Your task to perform on an android device: Toggle the flashlight Image 0: 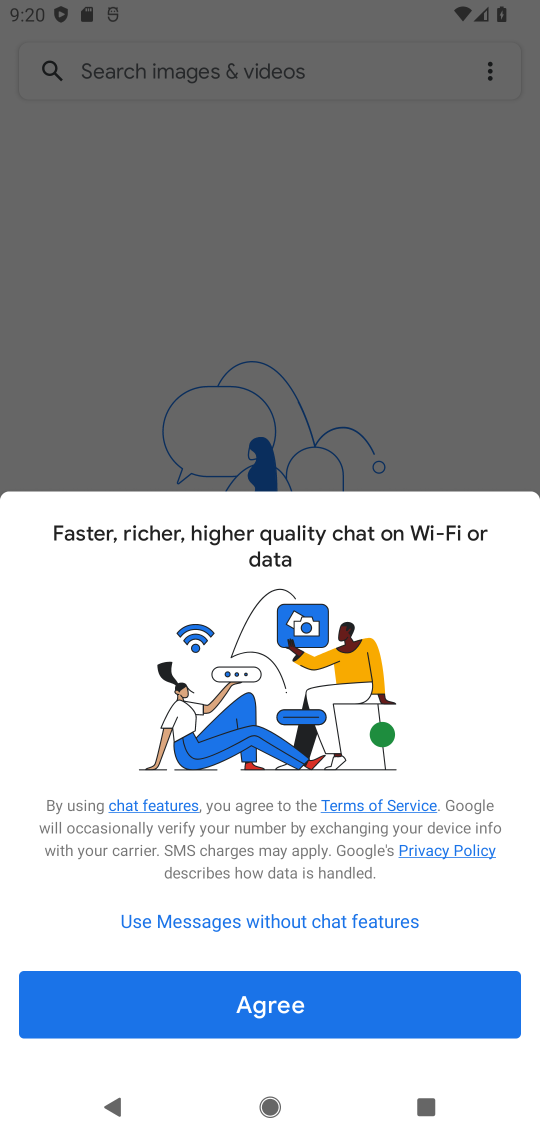
Step 0: press back button
Your task to perform on an android device: Toggle the flashlight Image 1: 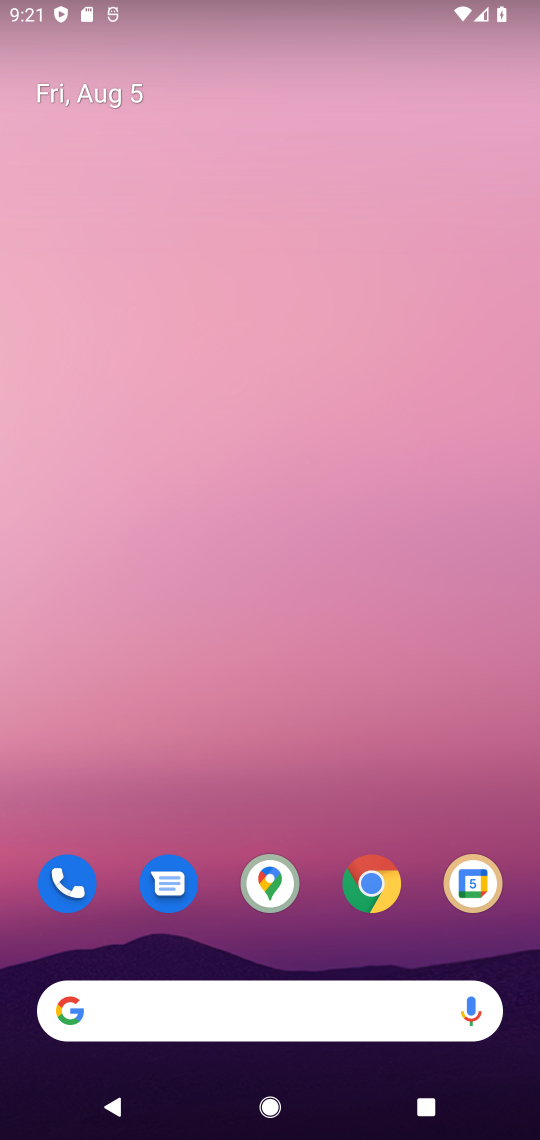
Step 1: drag from (208, 928) to (309, 1)
Your task to perform on an android device: Toggle the flashlight Image 2: 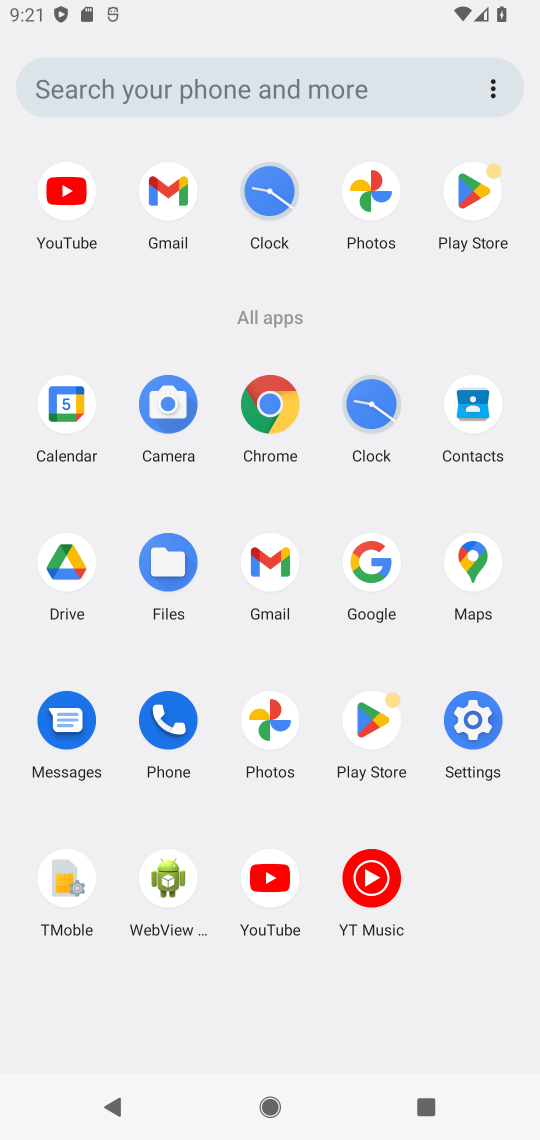
Step 2: click (468, 728)
Your task to perform on an android device: Toggle the flashlight Image 3: 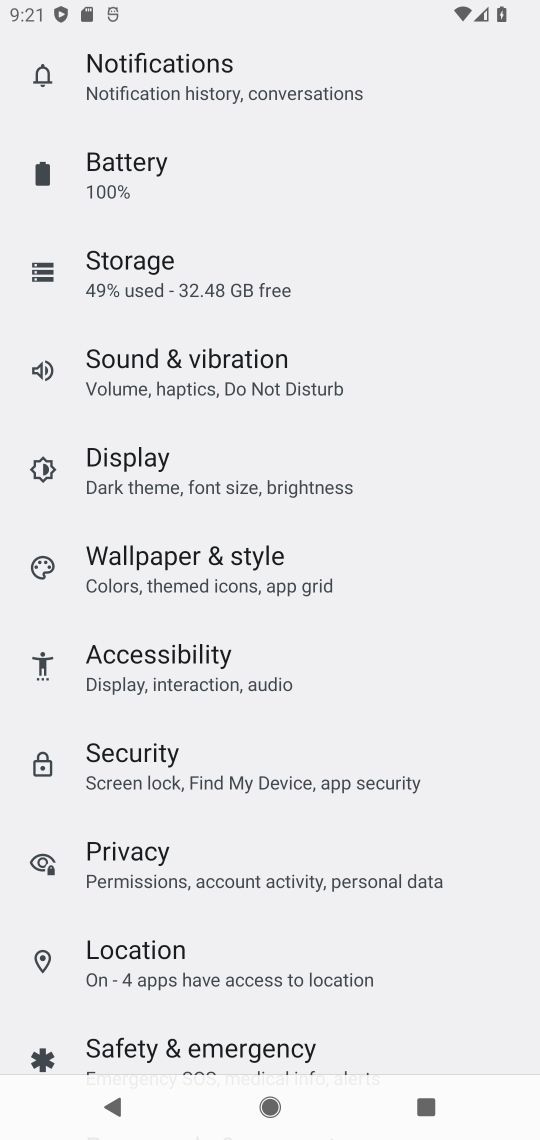
Step 3: drag from (323, 81) to (356, 1132)
Your task to perform on an android device: Toggle the flashlight Image 4: 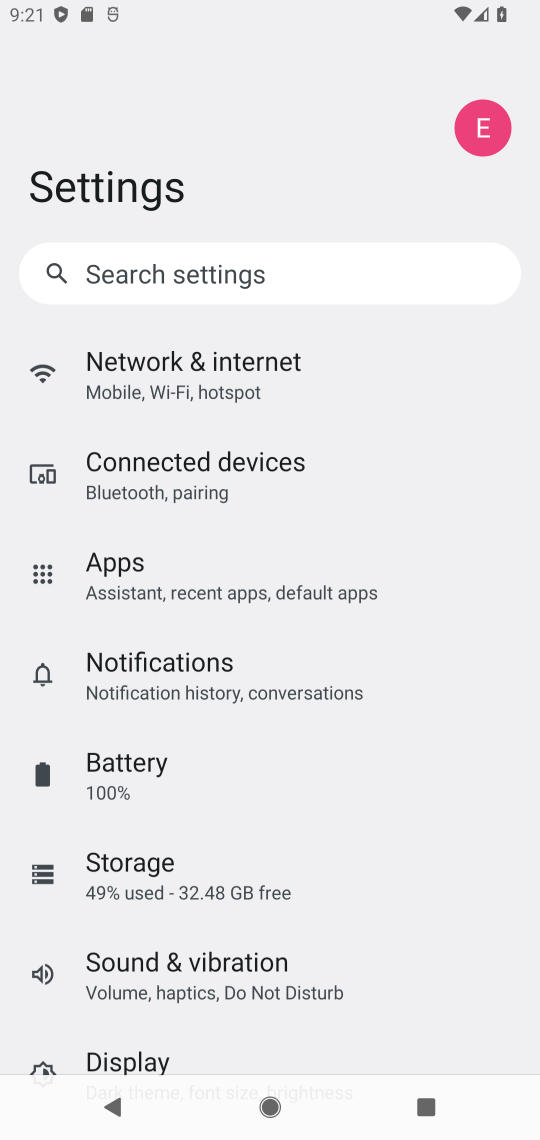
Step 4: drag from (208, 142) to (234, 52)
Your task to perform on an android device: Toggle the flashlight Image 5: 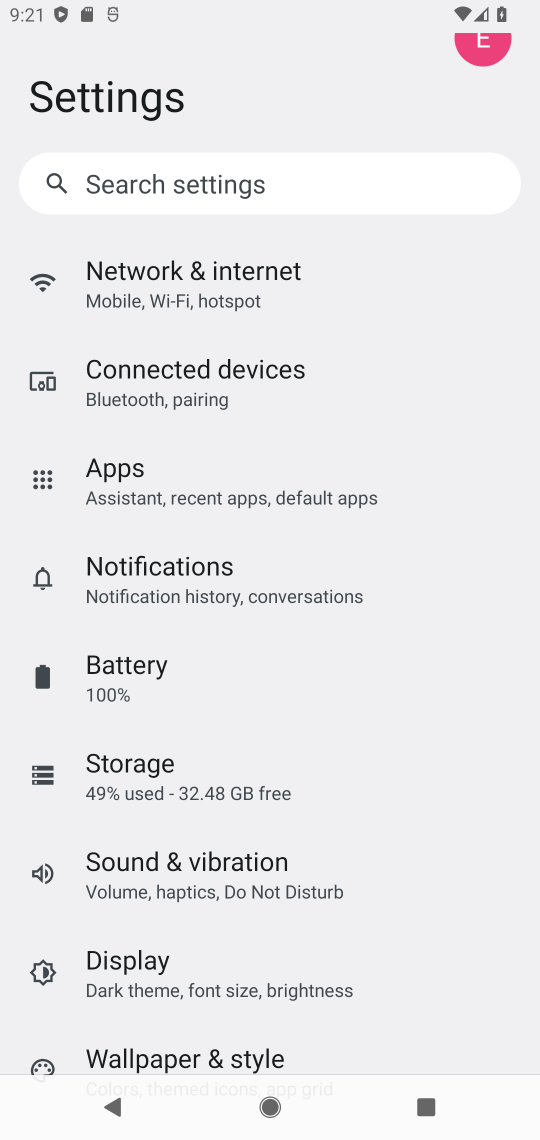
Step 5: click (190, 174)
Your task to perform on an android device: Toggle the flashlight Image 6: 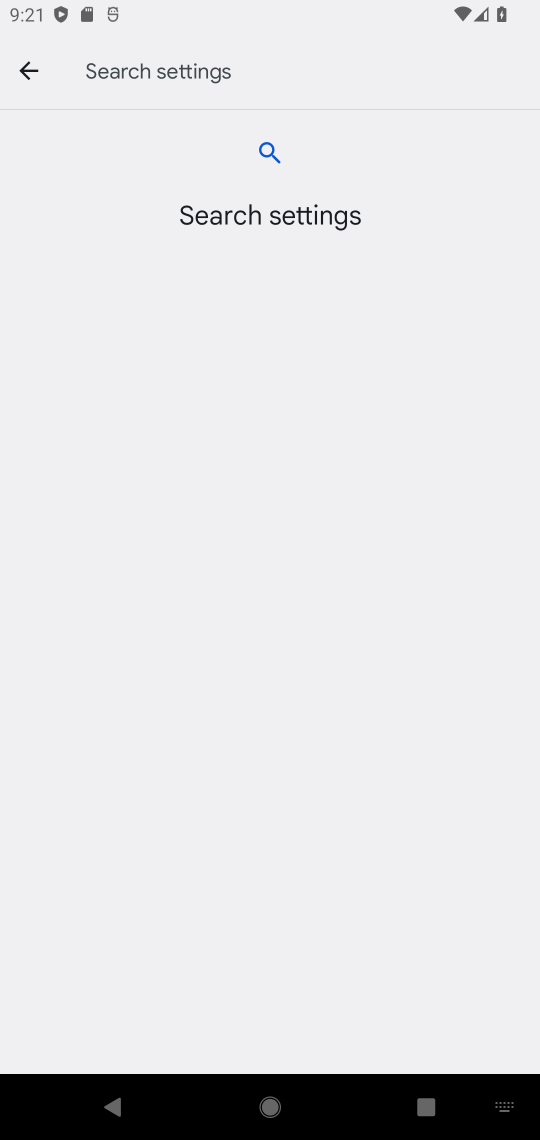
Step 6: type "flashlight"
Your task to perform on an android device: Toggle the flashlight Image 7: 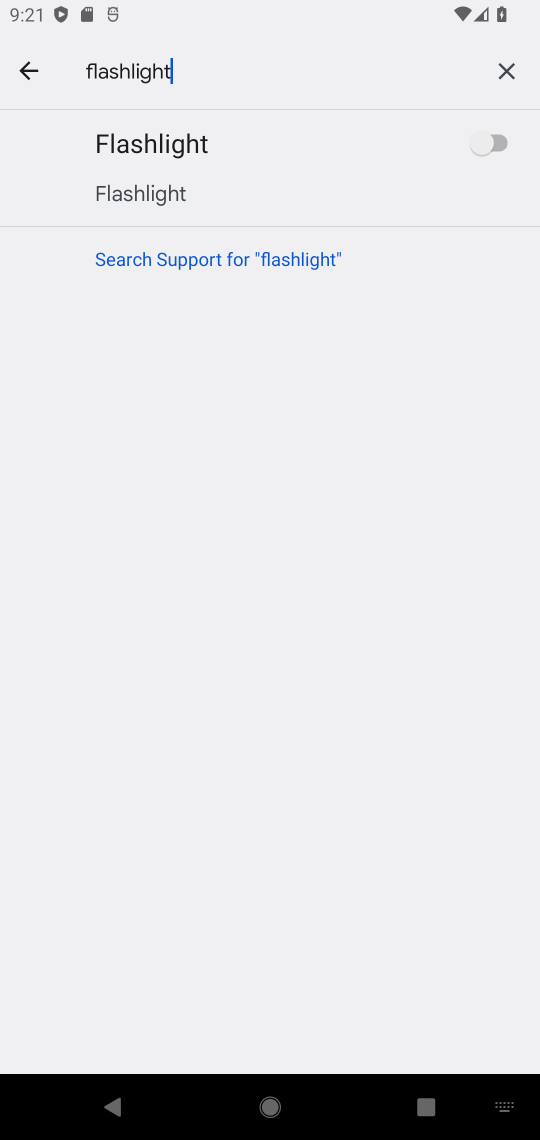
Step 7: click (486, 135)
Your task to perform on an android device: Toggle the flashlight Image 8: 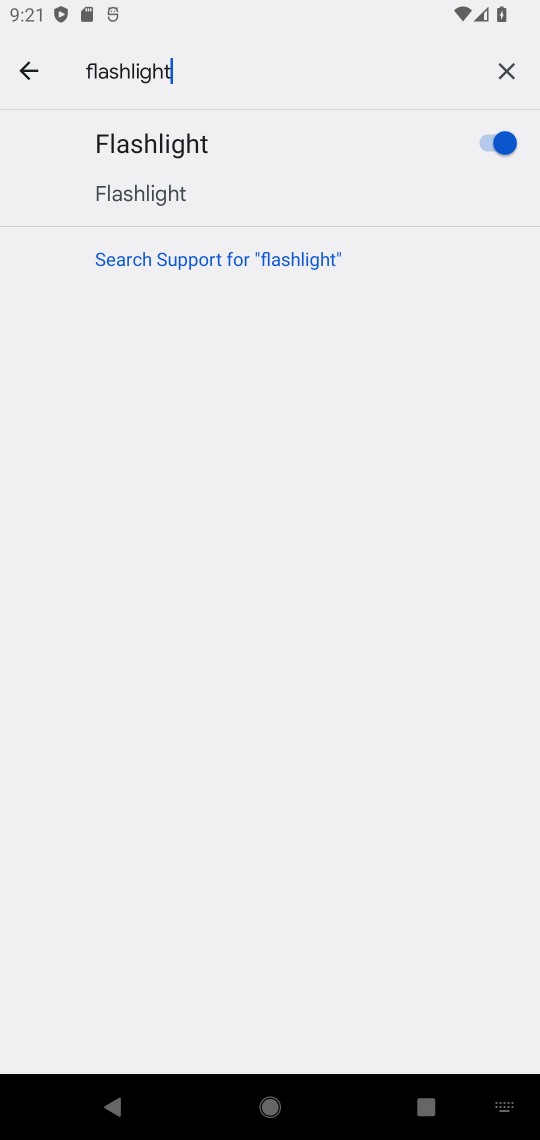
Step 8: task complete